Your task to perform on an android device: turn on data saver in the chrome app Image 0: 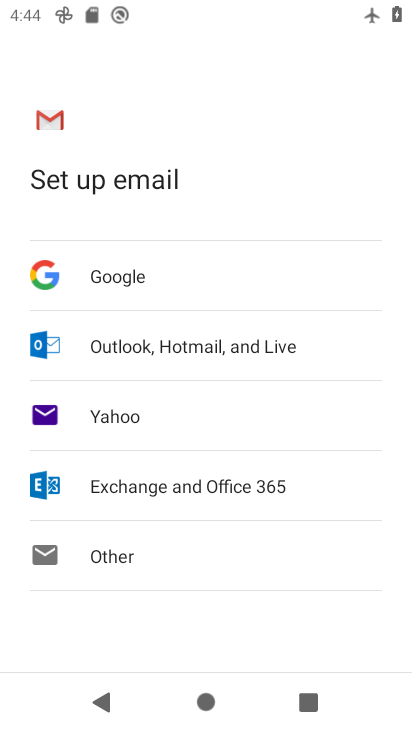
Step 0: press home button
Your task to perform on an android device: turn on data saver in the chrome app Image 1: 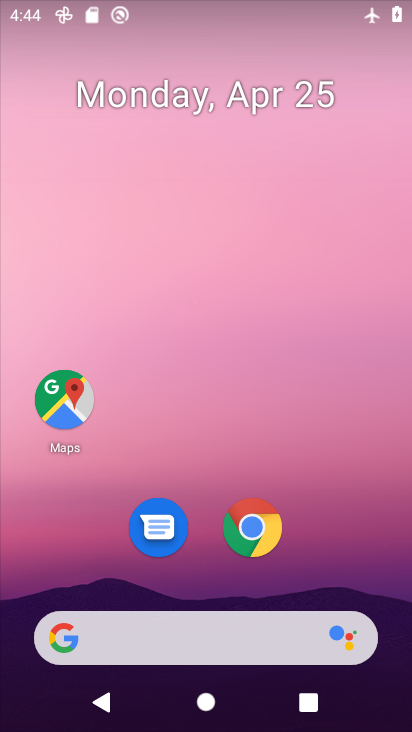
Step 1: click (257, 526)
Your task to perform on an android device: turn on data saver in the chrome app Image 2: 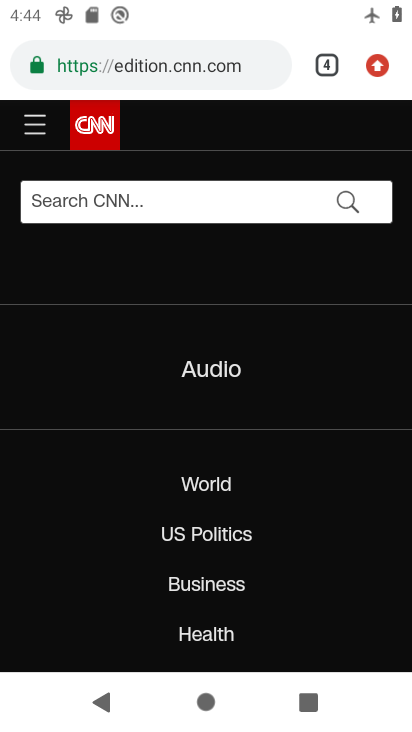
Step 2: click (375, 65)
Your task to perform on an android device: turn on data saver in the chrome app Image 3: 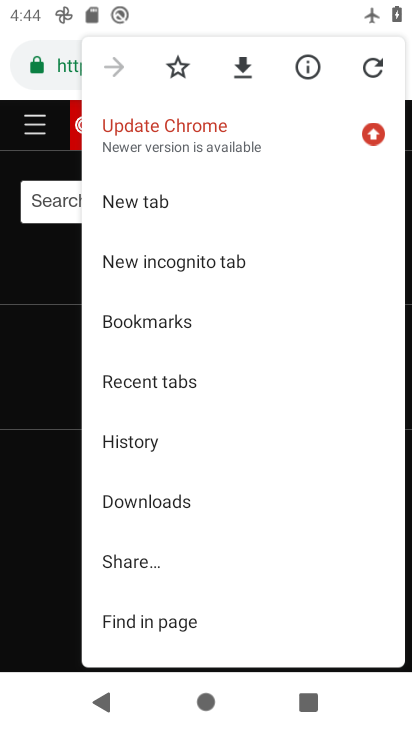
Step 3: drag from (236, 593) to (268, 318)
Your task to perform on an android device: turn on data saver in the chrome app Image 4: 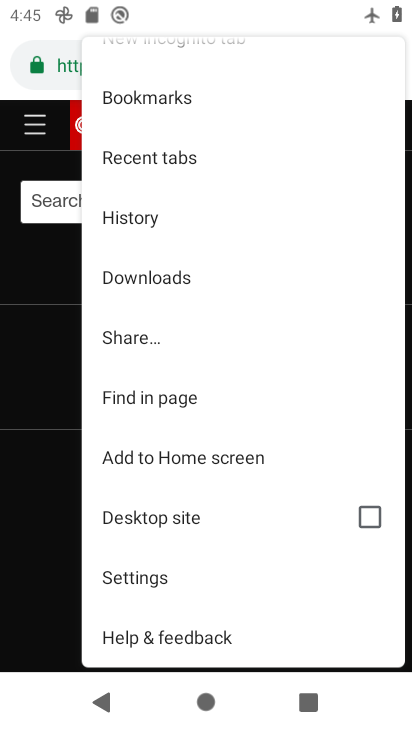
Step 4: click (149, 568)
Your task to perform on an android device: turn on data saver in the chrome app Image 5: 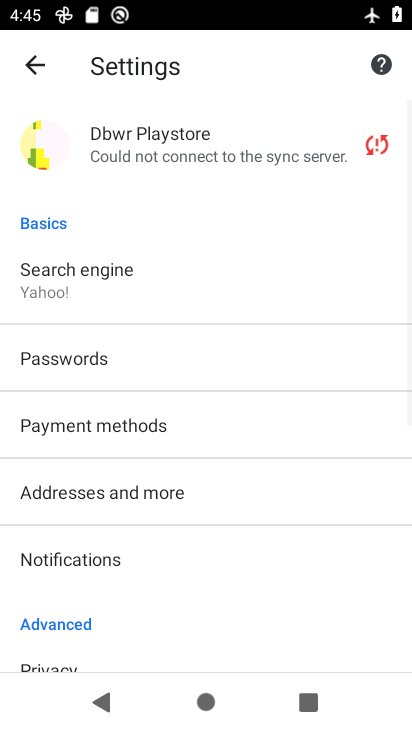
Step 5: drag from (216, 610) to (257, 206)
Your task to perform on an android device: turn on data saver in the chrome app Image 6: 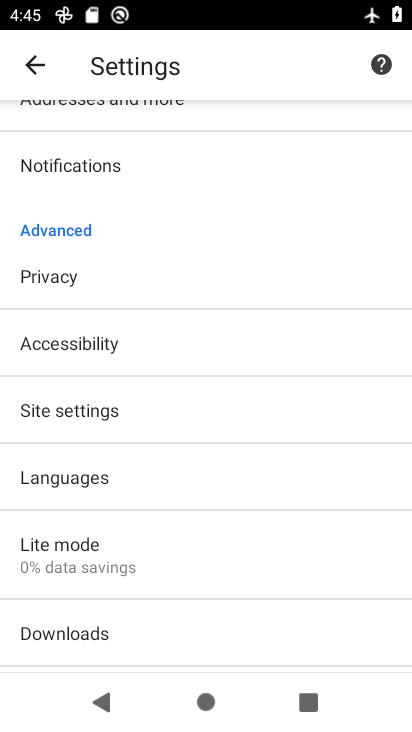
Step 6: click (60, 546)
Your task to perform on an android device: turn on data saver in the chrome app Image 7: 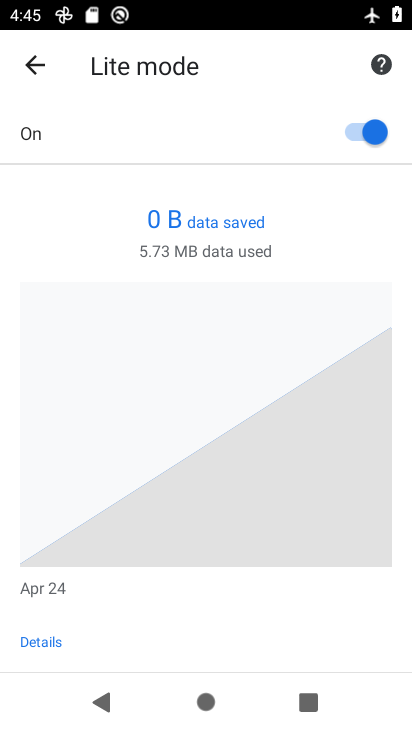
Step 7: task complete